Your task to perform on an android device: turn on location history Image 0: 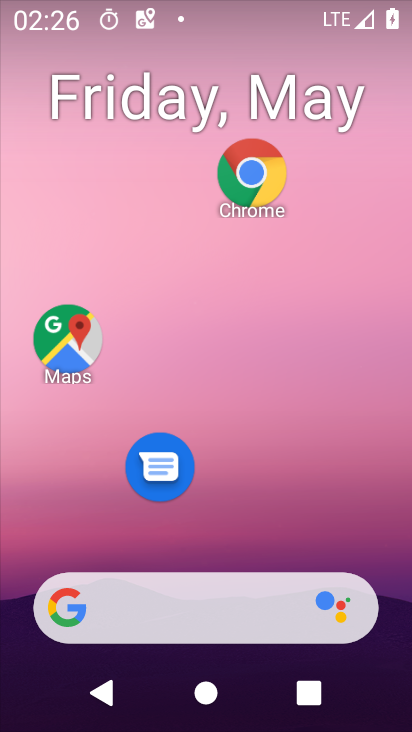
Step 0: drag from (276, 638) to (280, 241)
Your task to perform on an android device: turn on location history Image 1: 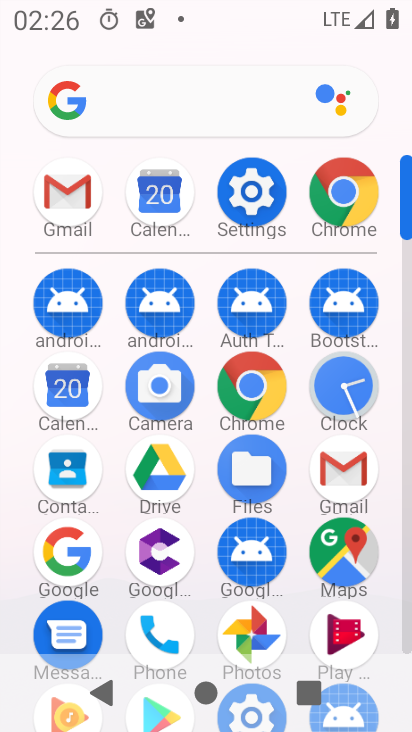
Step 1: click (258, 216)
Your task to perform on an android device: turn on location history Image 2: 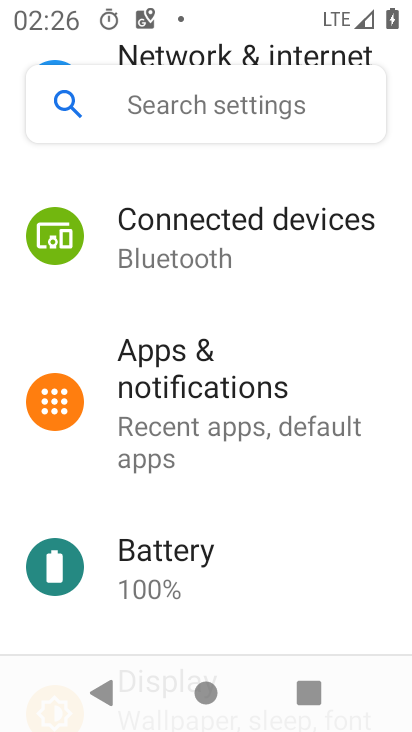
Step 2: click (189, 118)
Your task to perform on an android device: turn on location history Image 3: 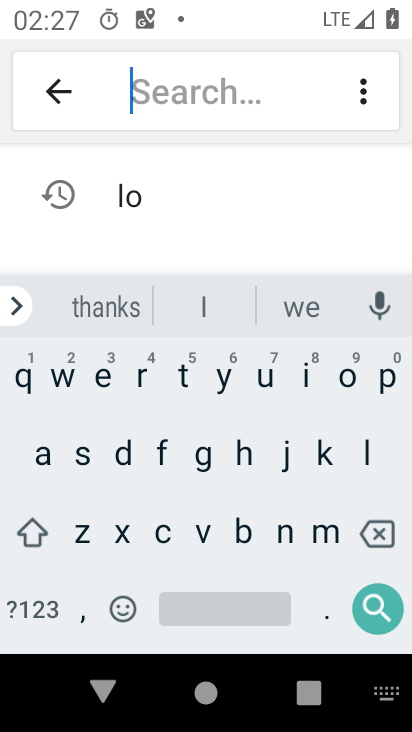
Step 3: click (120, 193)
Your task to perform on an android device: turn on location history Image 4: 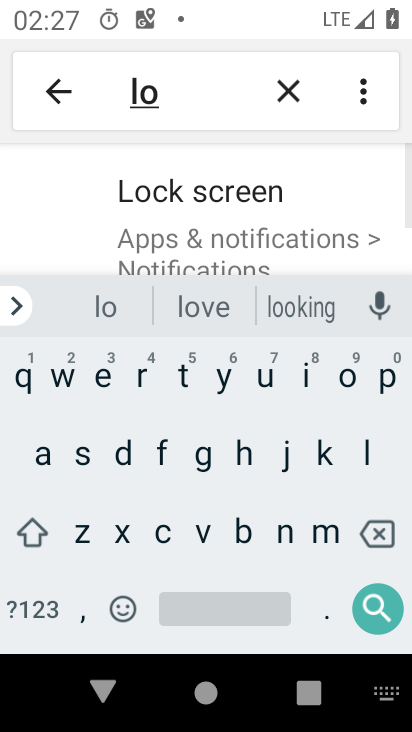
Step 4: drag from (161, 230) to (172, 137)
Your task to perform on an android device: turn on location history Image 5: 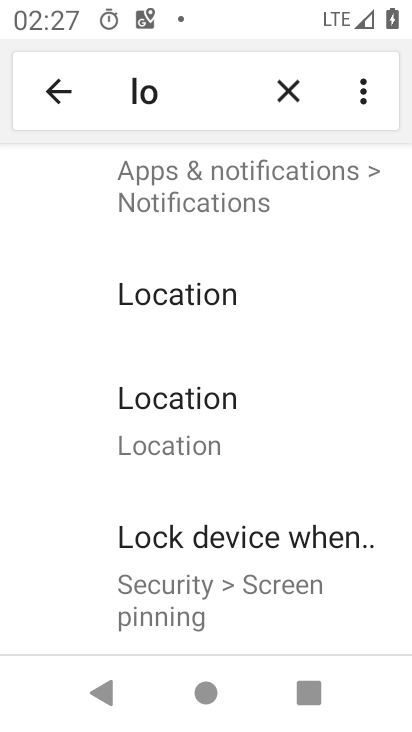
Step 5: click (216, 426)
Your task to perform on an android device: turn on location history Image 6: 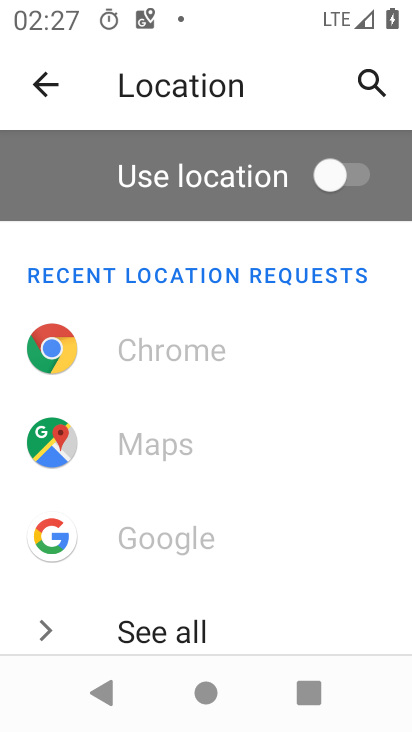
Step 6: drag from (220, 514) to (191, 320)
Your task to perform on an android device: turn on location history Image 7: 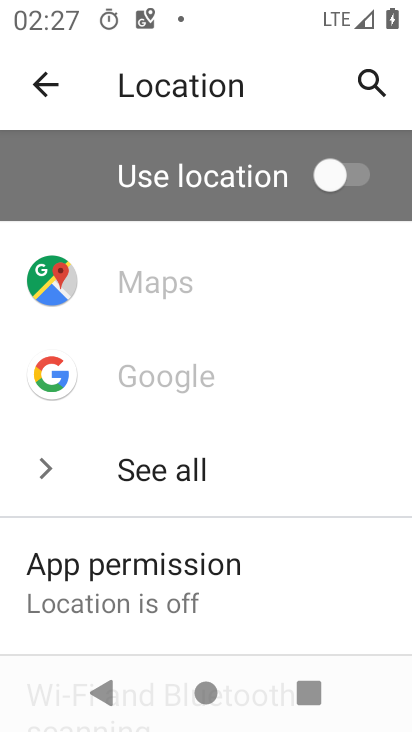
Step 7: drag from (232, 559) to (210, 272)
Your task to perform on an android device: turn on location history Image 8: 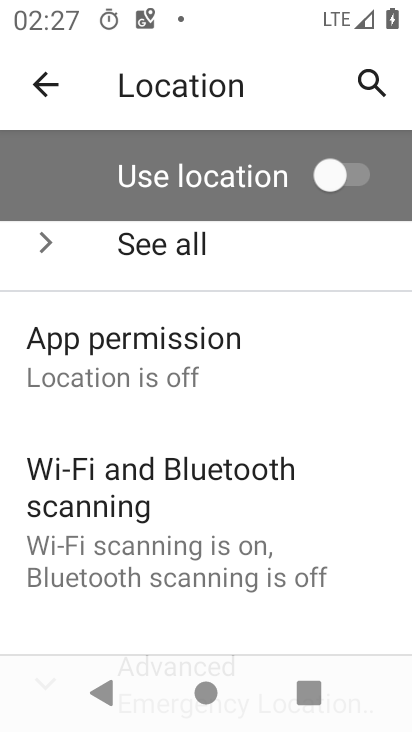
Step 8: drag from (184, 564) to (165, 317)
Your task to perform on an android device: turn on location history Image 9: 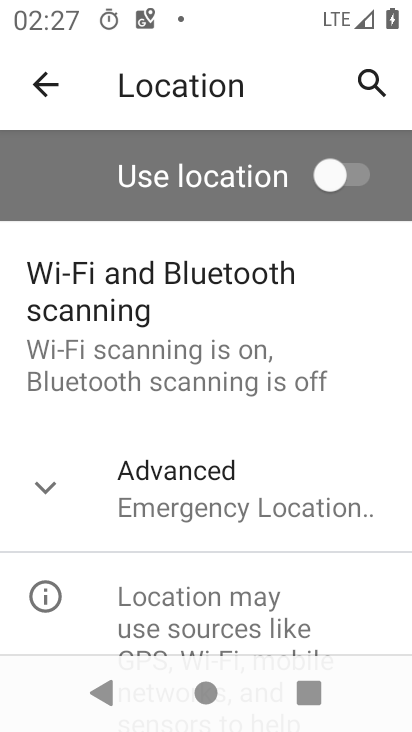
Step 9: click (46, 491)
Your task to perform on an android device: turn on location history Image 10: 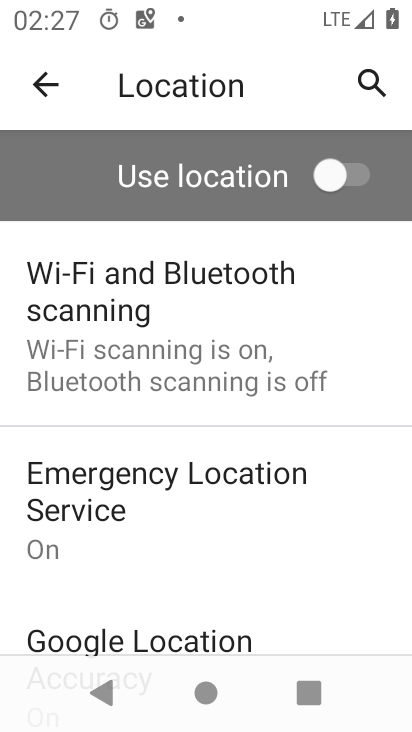
Step 10: drag from (179, 598) to (190, 282)
Your task to perform on an android device: turn on location history Image 11: 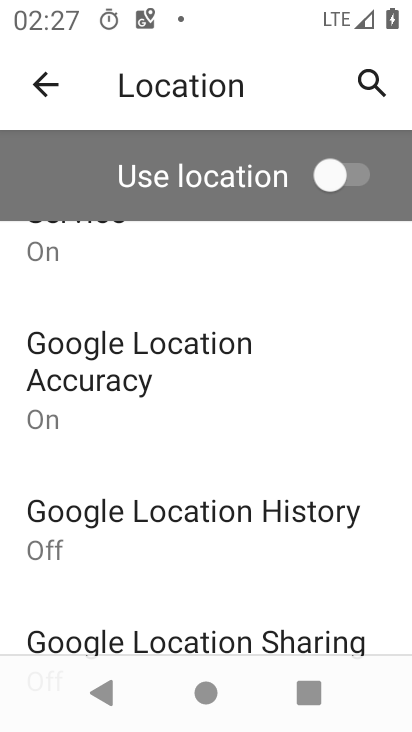
Step 11: click (155, 529)
Your task to perform on an android device: turn on location history Image 12: 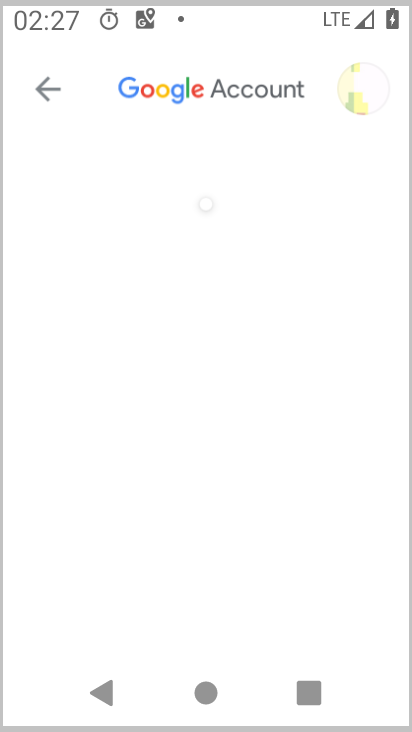
Step 12: drag from (234, 568) to (239, 230)
Your task to perform on an android device: turn on location history Image 13: 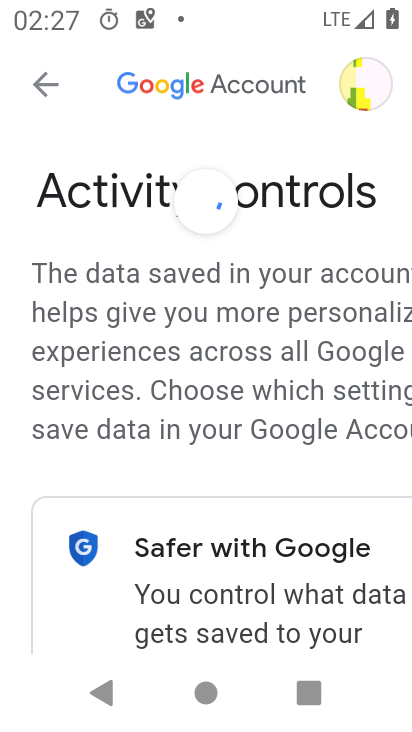
Step 13: drag from (303, 543) to (270, 180)
Your task to perform on an android device: turn on location history Image 14: 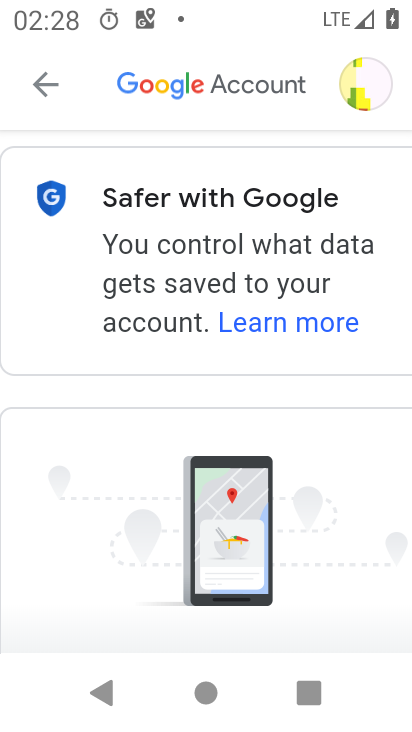
Step 14: drag from (225, 548) to (217, 232)
Your task to perform on an android device: turn on location history Image 15: 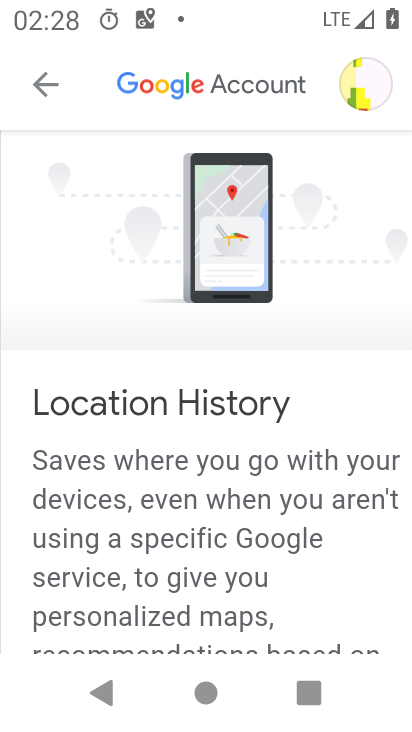
Step 15: drag from (229, 535) to (230, 361)
Your task to perform on an android device: turn on location history Image 16: 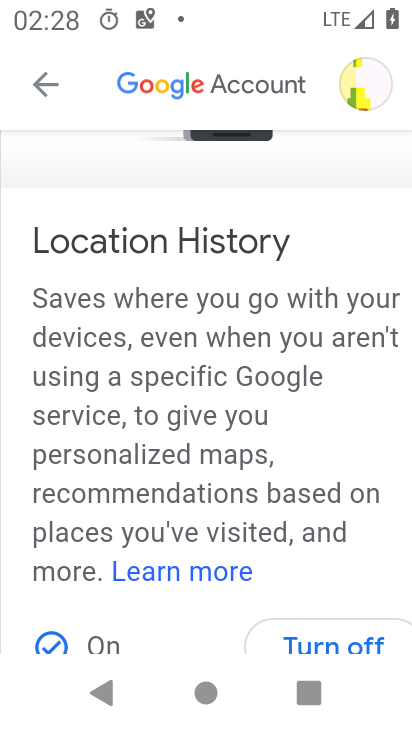
Step 16: drag from (223, 479) to (238, 419)
Your task to perform on an android device: turn on location history Image 17: 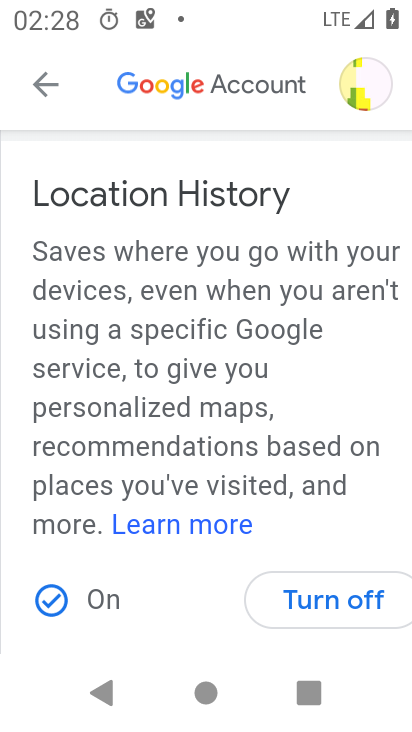
Step 17: click (112, 604)
Your task to perform on an android device: turn on location history Image 18: 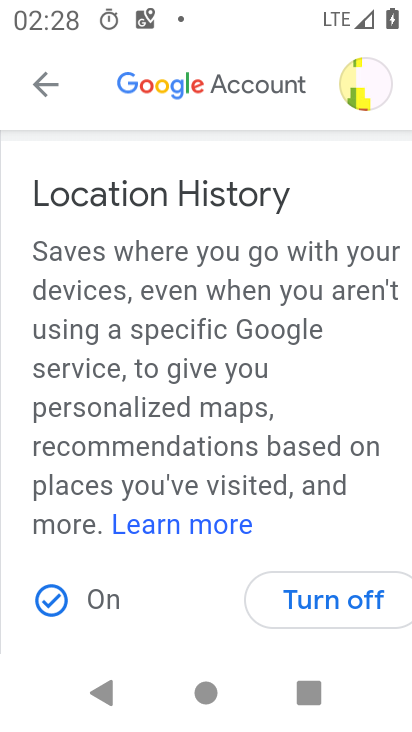
Step 18: task complete